Your task to perform on an android device: Set the phone to "Do not disturb". Image 0: 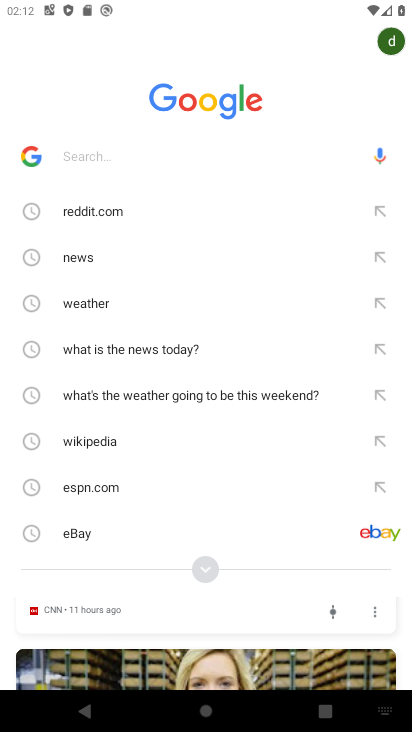
Step 0: drag from (203, 16) to (146, 298)
Your task to perform on an android device: Set the phone to "Do not disturb". Image 1: 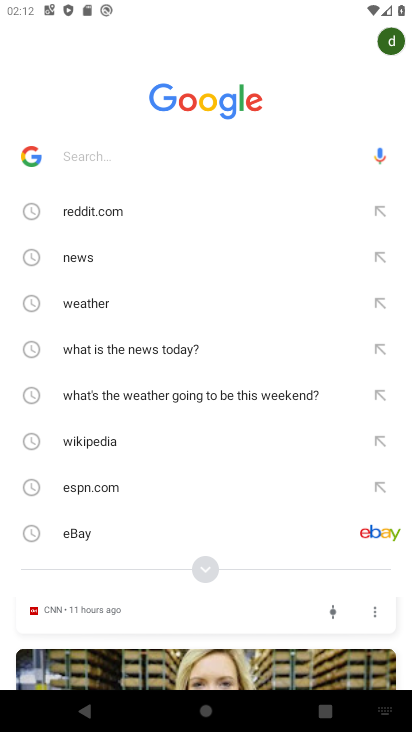
Step 1: drag from (142, 0) to (109, 588)
Your task to perform on an android device: Set the phone to "Do not disturb". Image 2: 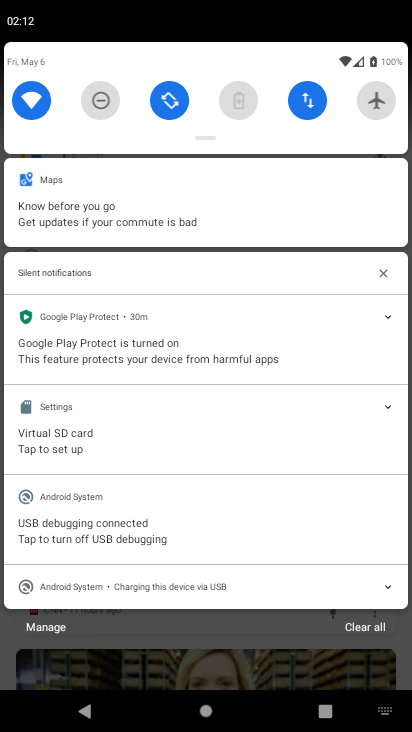
Step 2: click (96, 99)
Your task to perform on an android device: Set the phone to "Do not disturb". Image 3: 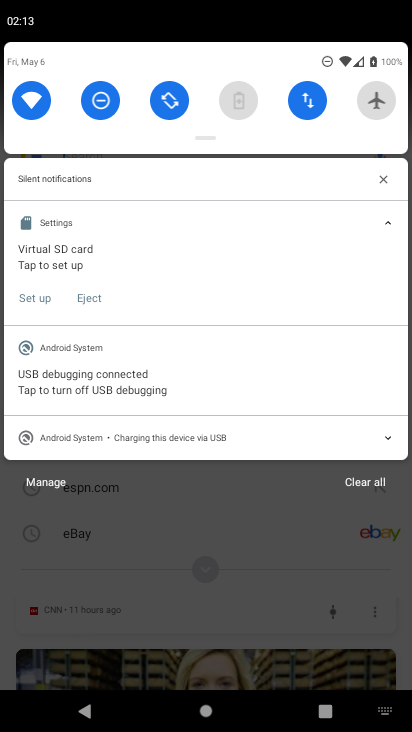
Step 3: task complete